Your task to perform on an android device: toggle location history Image 0: 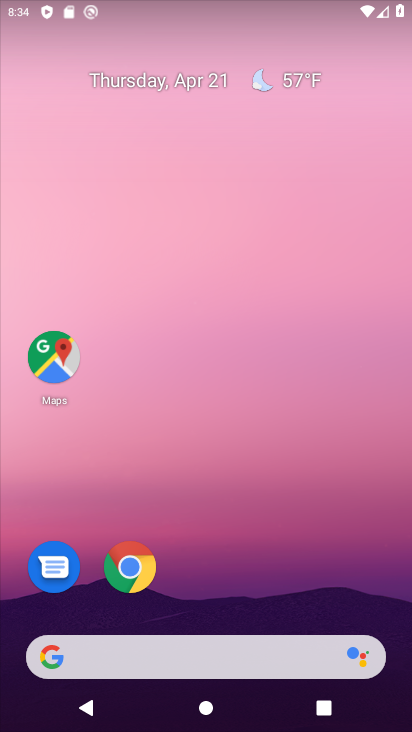
Step 0: drag from (225, 627) to (197, 61)
Your task to perform on an android device: toggle location history Image 1: 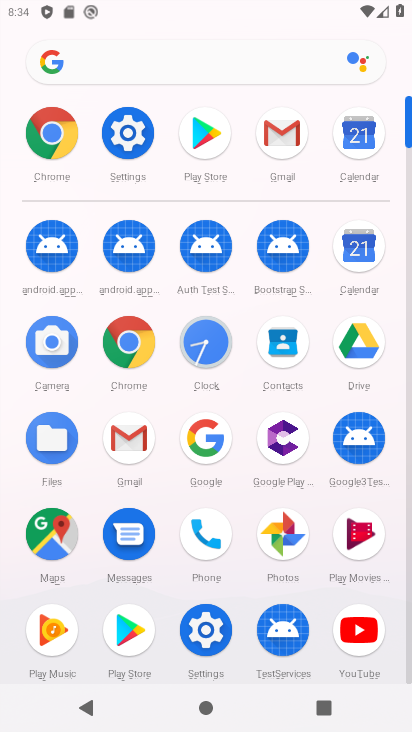
Step 1: click (131, 140)
Your task to perform on an android device: toggle location history Image 2: 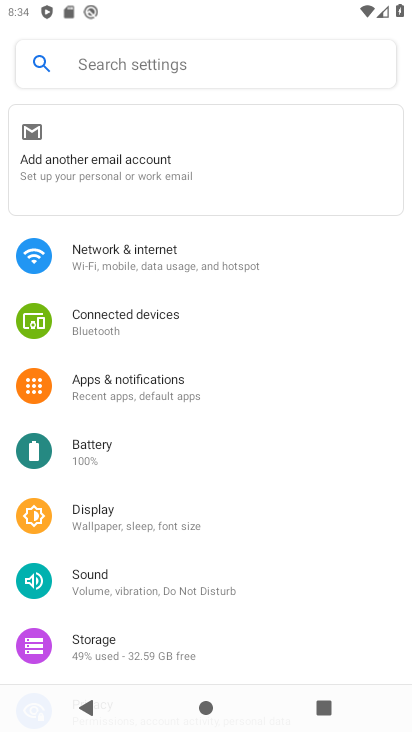
Step 2: drag from (135, 508) to (134, 122)
Your task to perform on an android device: toggle location history Image 3: 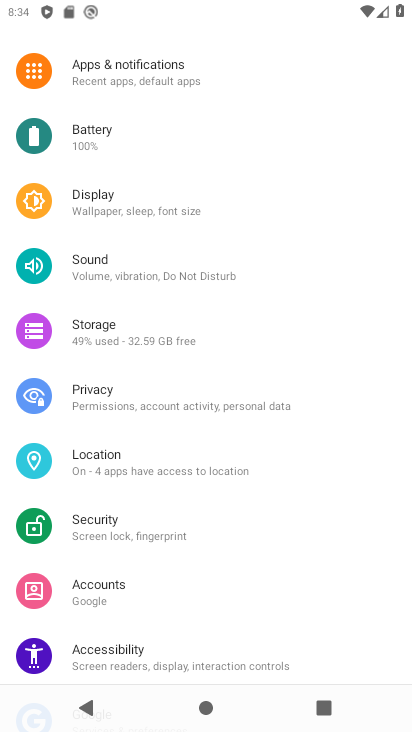
Step 3: click (103, 443)
Your task to perform on an android device: toggle location history Image 4: 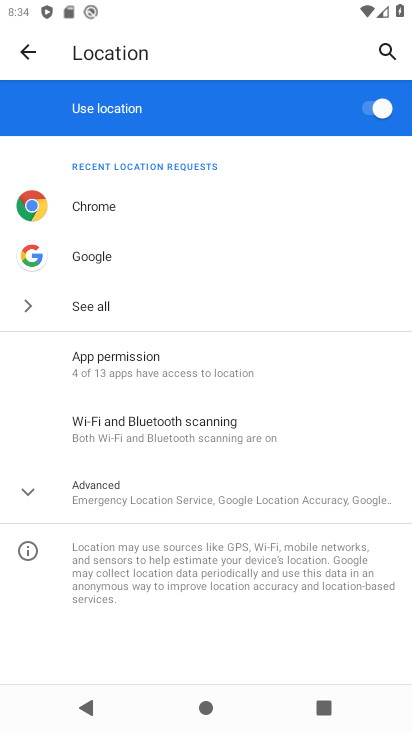
Step 4: click (113, 492)
Your task to perform on an android device: toggle location history Image 5: 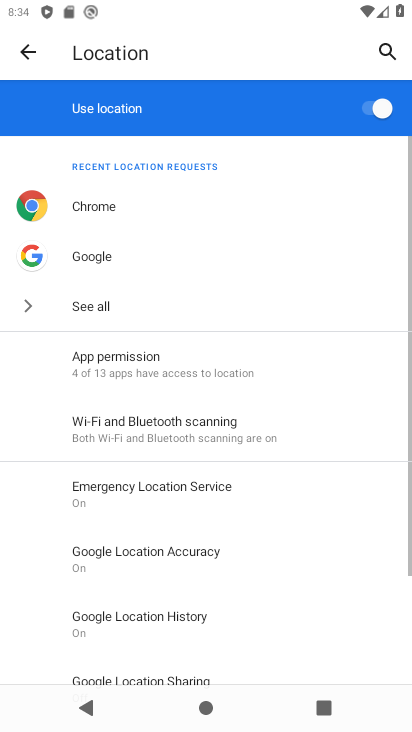
Step 5: drag from (113, 492) to (104, 318)
Your task to perform on an android device: toggle location history Image 6: 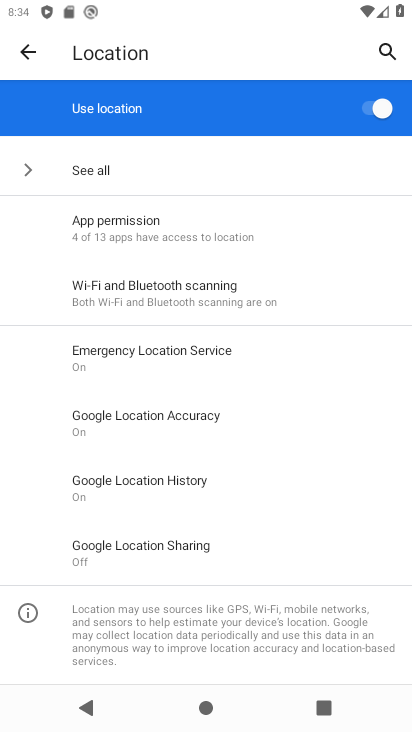
Step 6: click (151, 470)
Your task to perform on an android device: toggle location history Image 7: 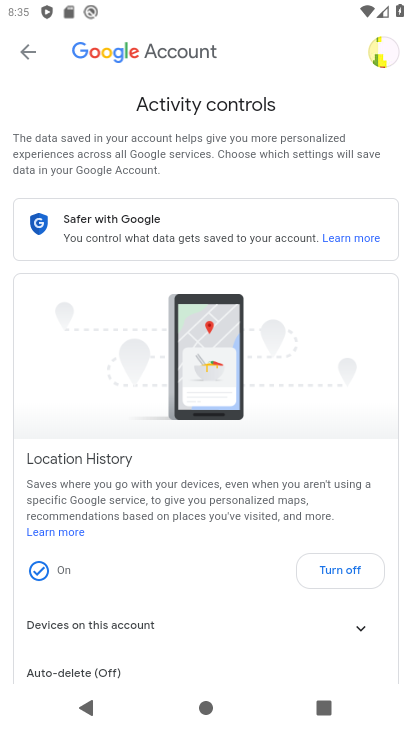
Step 7: click (362, 581)
Your task to perform on an android device: toggle location history Image 8: 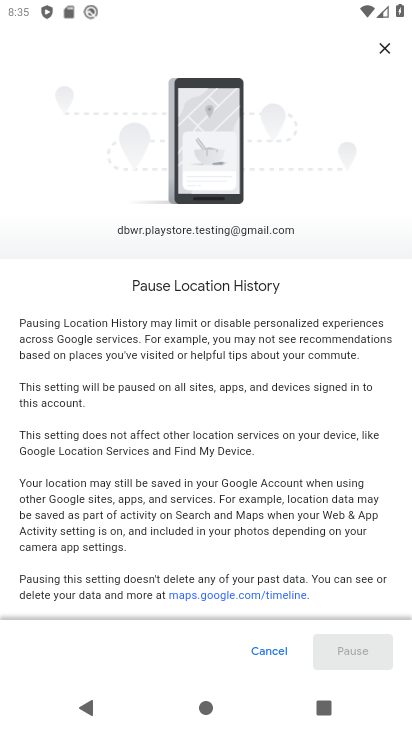
Step 8: drag from (328, 574) to (299, 37)
Your task to perform on an android device: toggle location history Image 9: 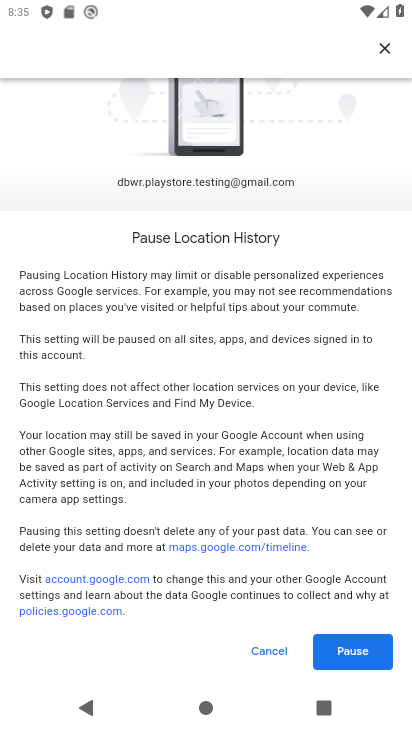
Step 9: drag from (284, 538) to (275, 343)
Your task to perform on an android device: toggle location history Image 10: 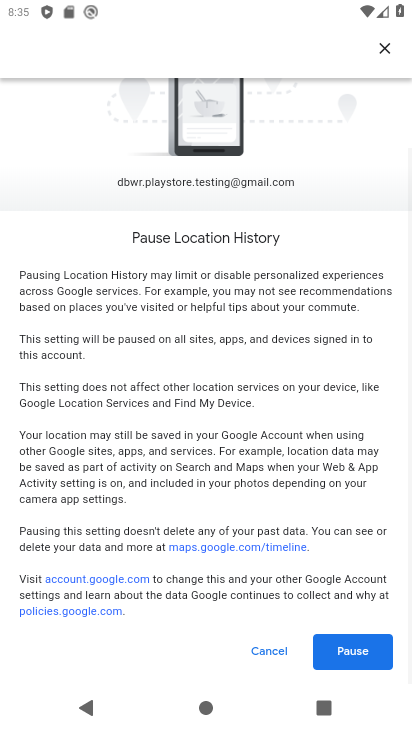
Step 10: click (370, 645)
Your task to perform on an android device: toggle location history Image 11: 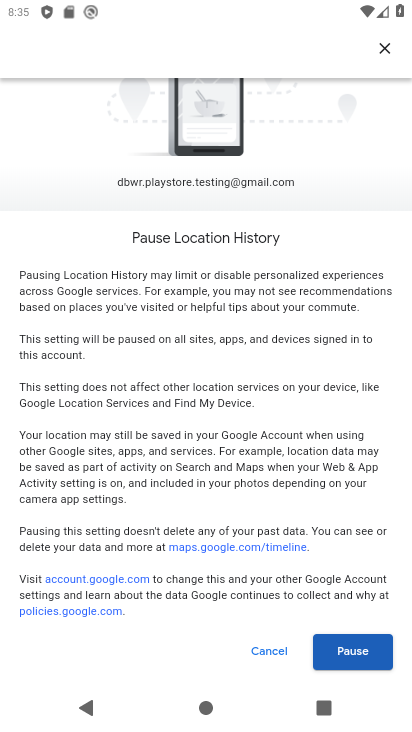
Step 11: click (371, 640)
Your task to perform on an android device: toggle location history Image 12: 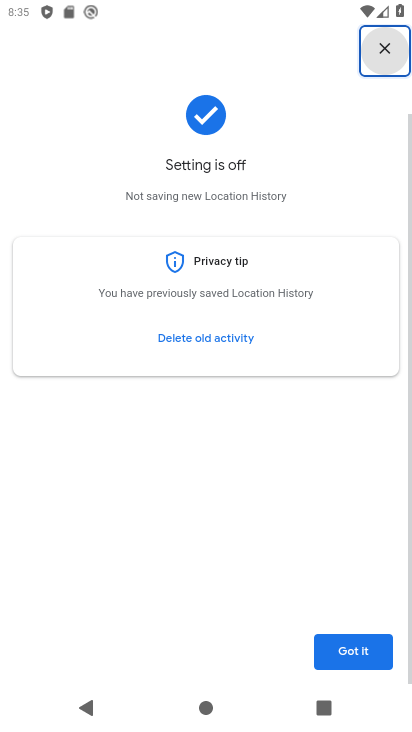
Step 12: click (367, 653)
Your task to perform on an android device: toggle location history Image 13: 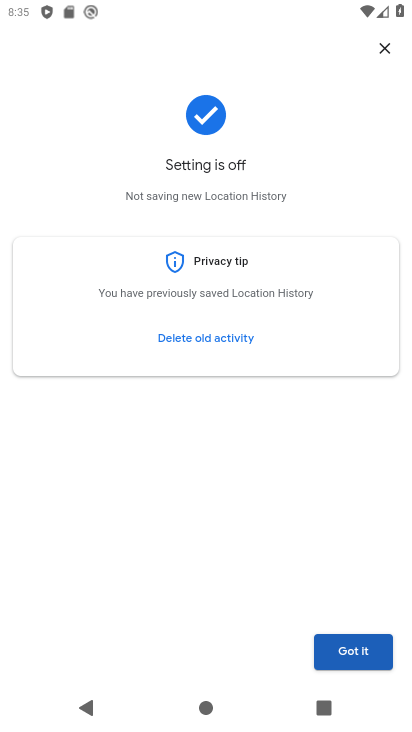
Step 13: click (366, 644)
Your task to perform on an android device: toggle location history Image 14: 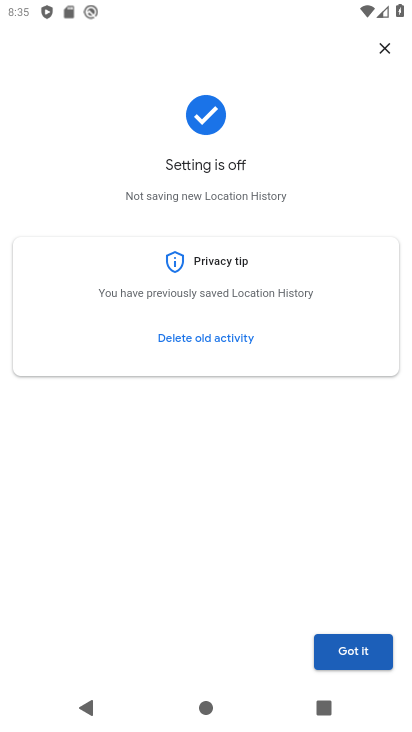
Step 14: click (353, 652)
Your task to perform on an android device: toggle location history Image 15: 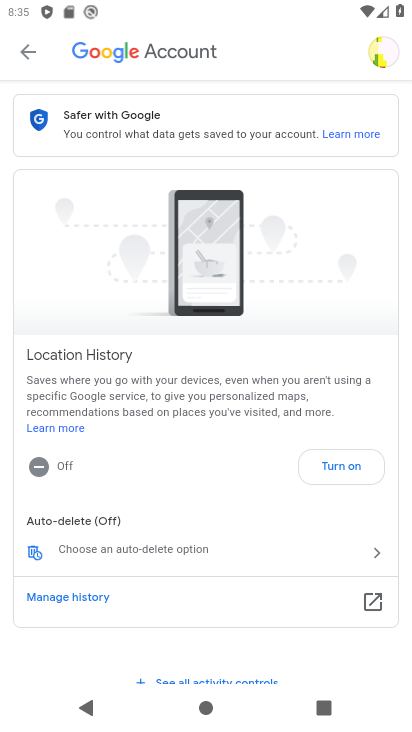
Step 15: task complete